Your task to perform on an android device: set default search engine in the chrome app Image 0: 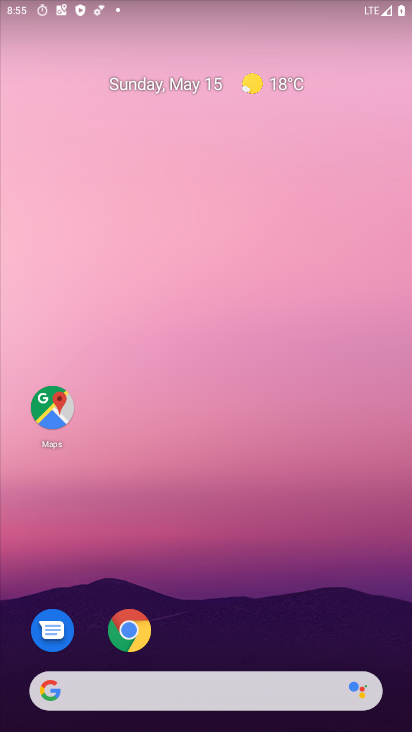
Step 0: drag from (173, 658) to (180, 479)
Your task to perform on an android device: set default search engine in the chrome app Image 1: 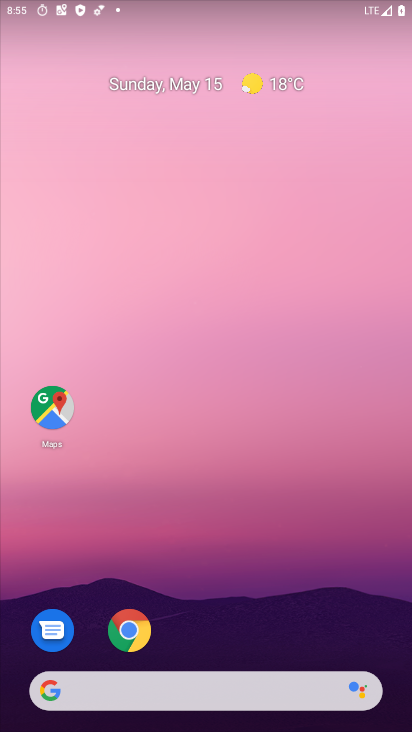
Step 1: drag from (189, 657) to (286, 177)
Your task to perform on an android device: set default search engine in the chrome app Image 2: 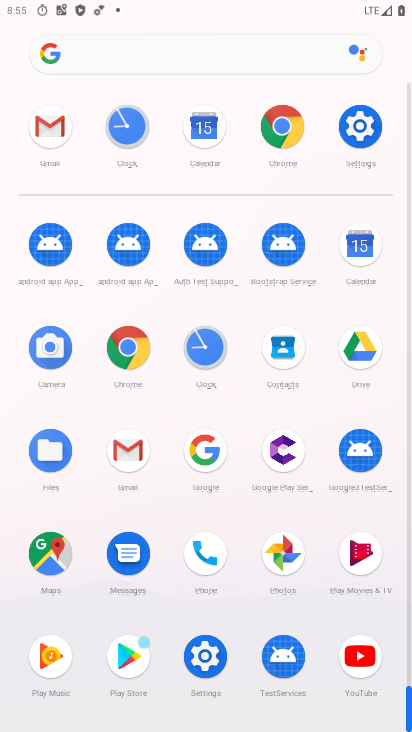
Step 2: click (135, 355)
Your task to perform on an android device: set default search engine in the chrome app Image 3: 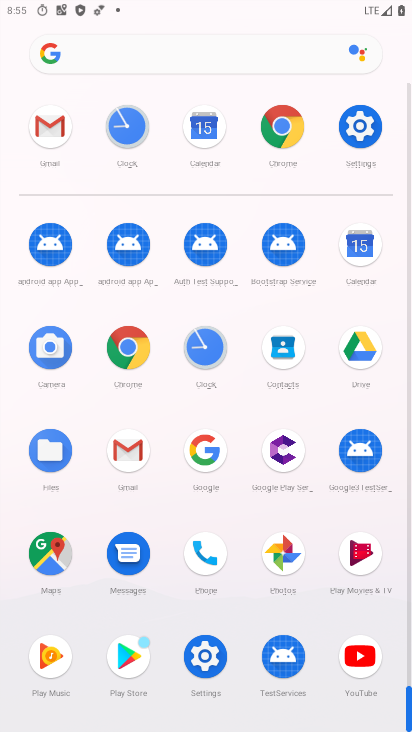
Step 3: click (133, 355)
Your task to perform on an android device: set default search engine in the chrome app Image 4: 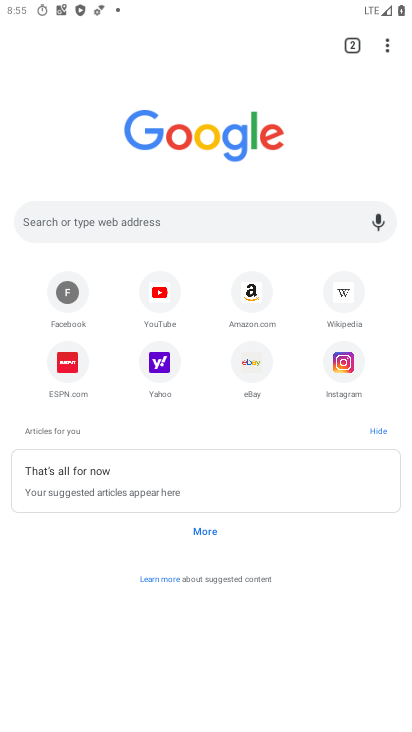
Step 4: click (386, 39)
Your task to perform on an android device: set default search engine in the chrome app Image 5: 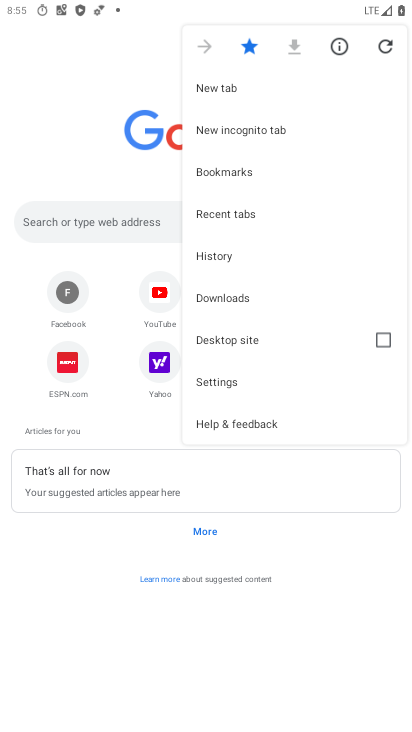
Step 5: click (227, 371)
Your task to perform on an android device: set default search engine in the chrome app Image 6: 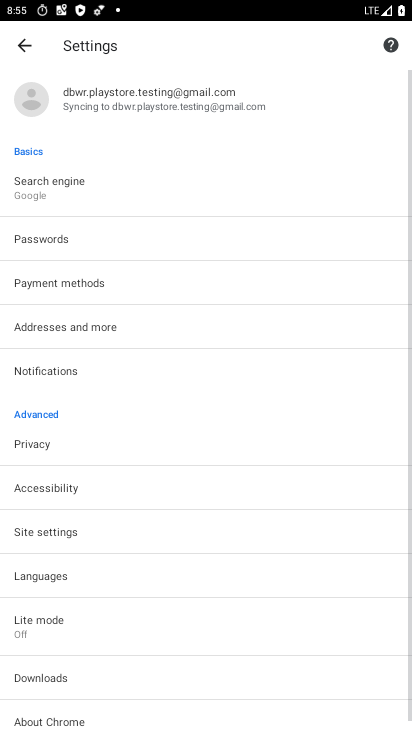
Step 6: click (94, 188)
Your task to perform on an android device: set default search engine in the chrome app Image 7: 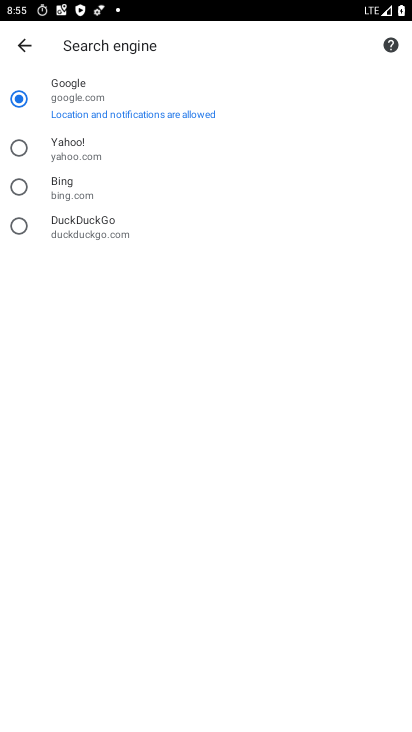
Step 7: click (115, 138)
Your task to perform on an android device: set default search engine in the chrome app Image 8: 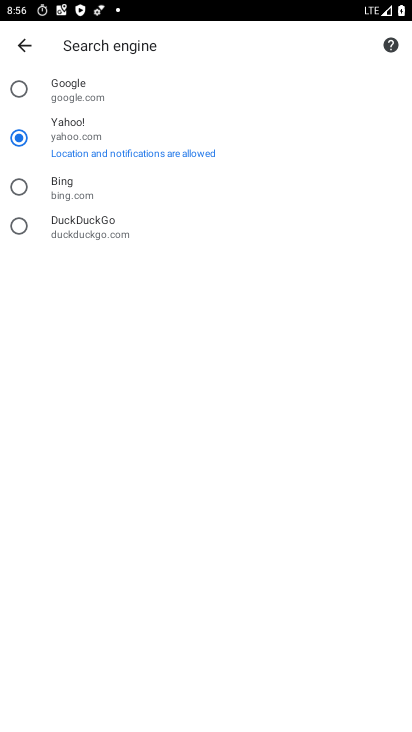
Step 8: task complete